Your task to perform on an android device: turn on sleep mode Image 0: 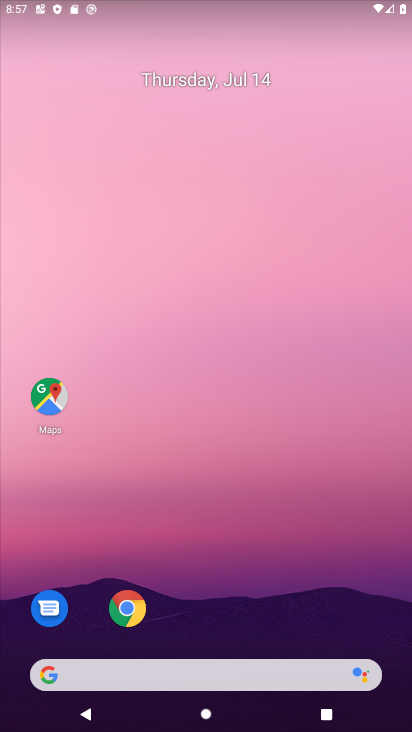
Step 0: drag from (199, 652) to (259, 42)
Your task to perform on an android device: turn on sleep mode Image 1: 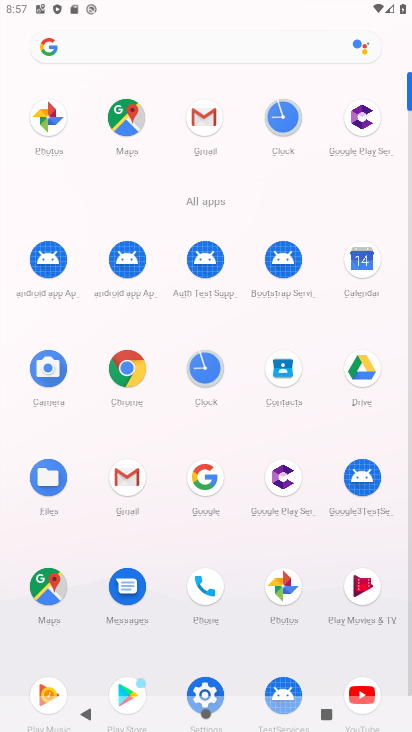
Step 1: click (201, 686)
Your task to perform on an android device: turn on sleep mode Image 2: 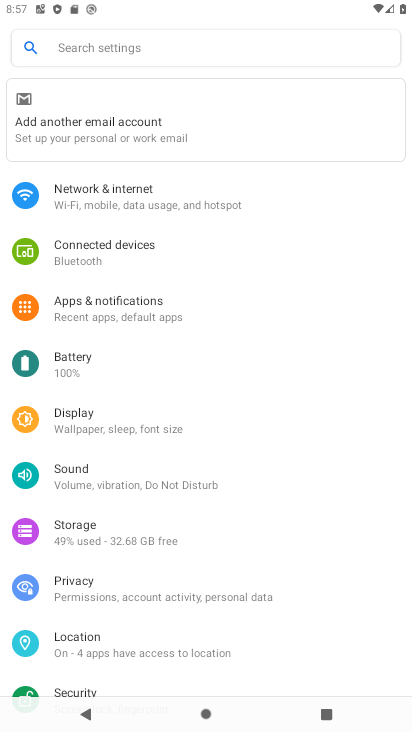
Step 2: click (127, 442)
Your task to perform on an android device: turn on sleep mode Image 3: 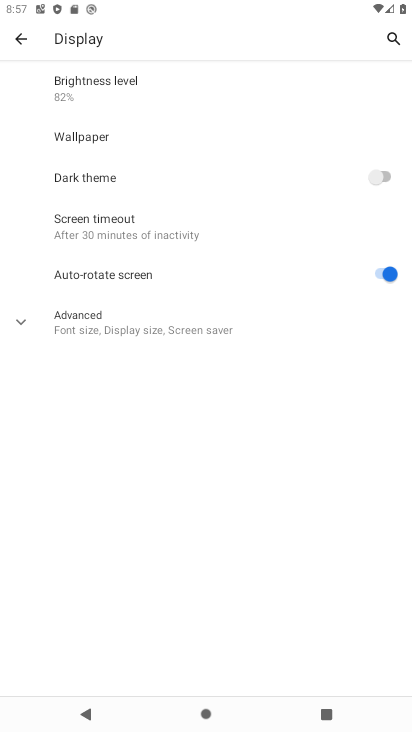
Step 3: click (211, 308)
Your task to perform on an android device: turn on sleep mode Image 4: 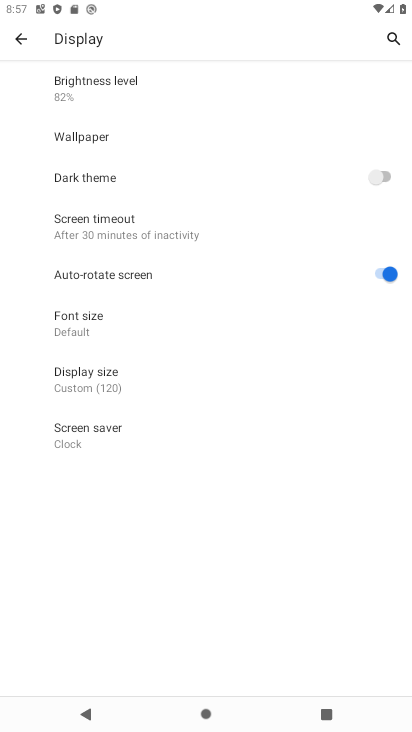
Step 4: task complete